Your task to perform on an android device: Search for a sofa on article.com Image 0: 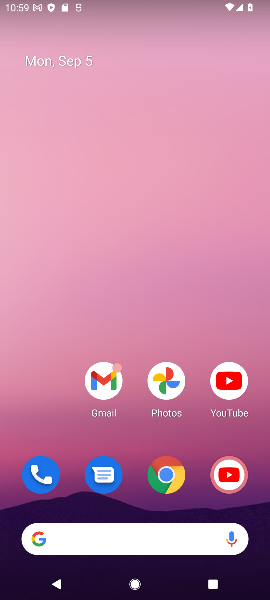
Step 0: click (156, 537)
Your task to perform on an android device: Search for a sofa on article.com Image 1: 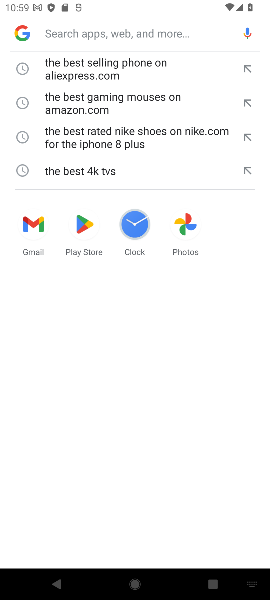
Step 1: type "a sofa on article.com"
Your task to perform on an android device: Search for a sofa on article.com Image 2: 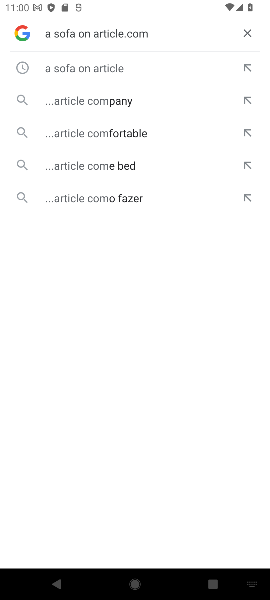
Step 2: click (113, 68)
Your task to perform on an android device: Search for a sofa on article.com Image 3: 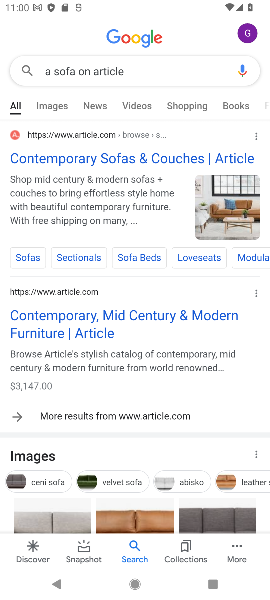
Step 3: task complete